Your task to perform on an android device: Open the Play Movies app and select the watchlist tab. Image 0: 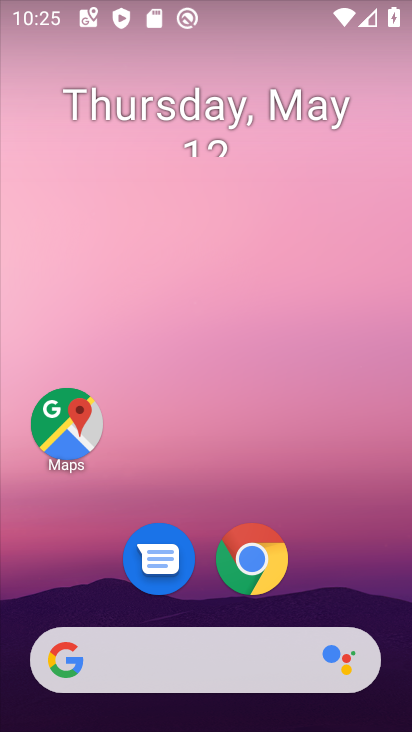
Step 0: drag from (201, 596) to (214, 264)
Your task to perform on an android device: Open the Play Movies app and select the watchlist tab. Image 1: 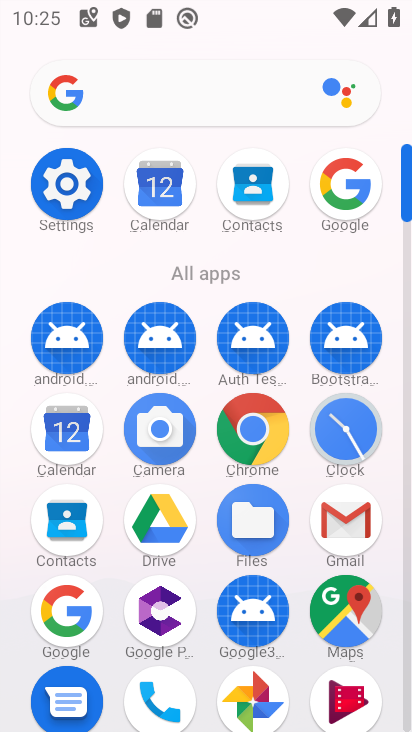
Step 1: click (344, 682)
Your task to perform on an android device: Open the Play Movies app and select the watchlist tab. Image 2: 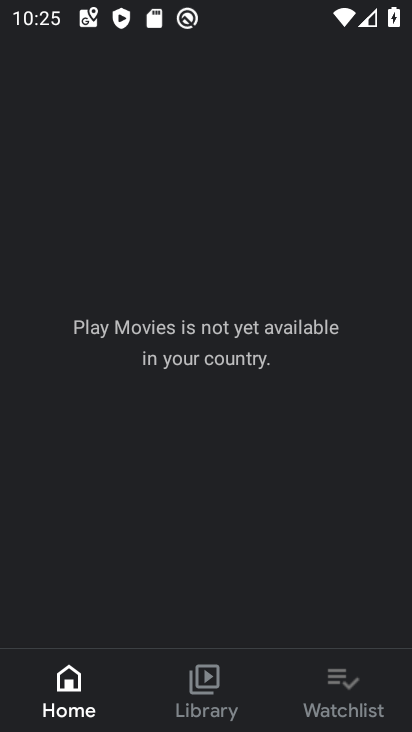
Step 2: click (335, 693)
Your task to perform on an android device: Open the Play Movies app and select the watchlist tab. Image 3: 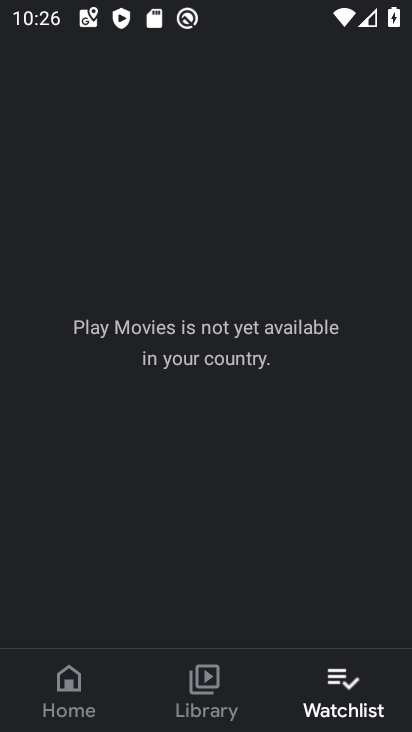
Step 3: task complete